Your task to perform on an android device: turn on bluetooth scan Image 0: 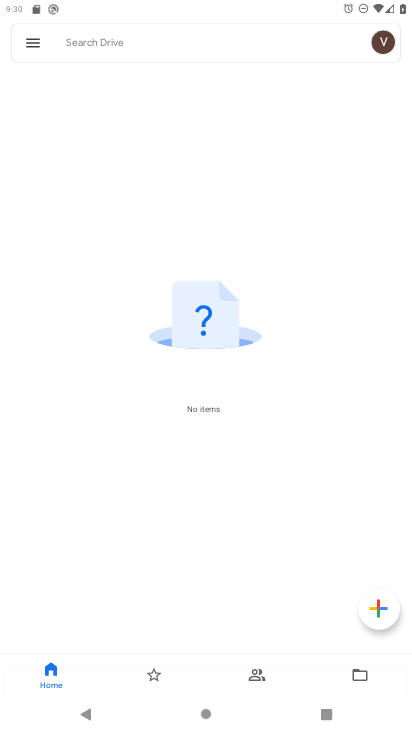
Step 0: press home button
Your task to perform on an android device: turn on bluetooth scan Image 1: 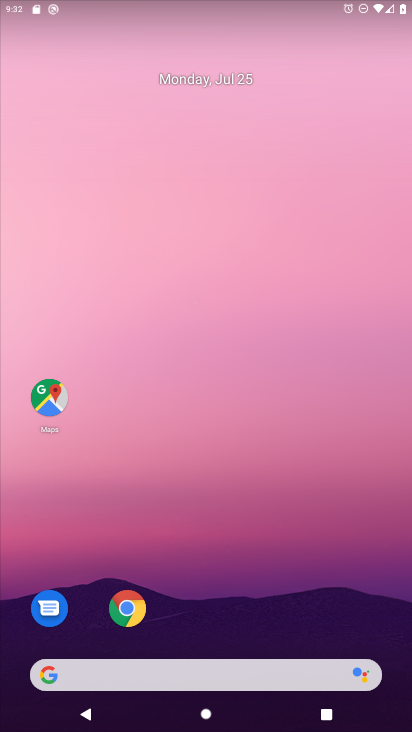
Step 1: drag from (150, 404) to (158, 146)
Your task to perform on an android device: turn on bluetooth scan Image 2: 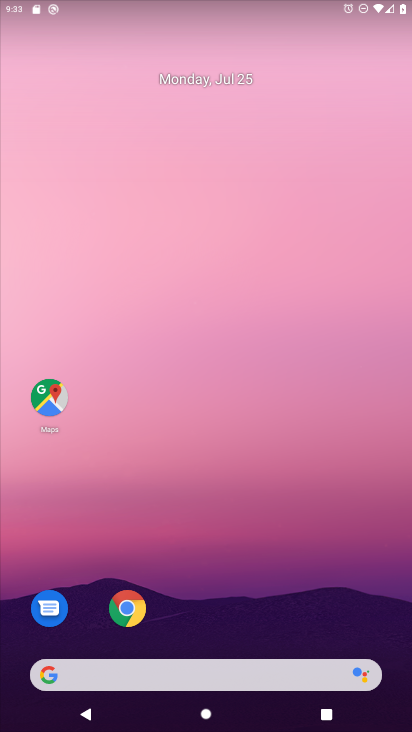
Step 2: drag from (131, 718) to (217, 113)
Your task to perform on an android device: turn on bluetooth scan Image 3: 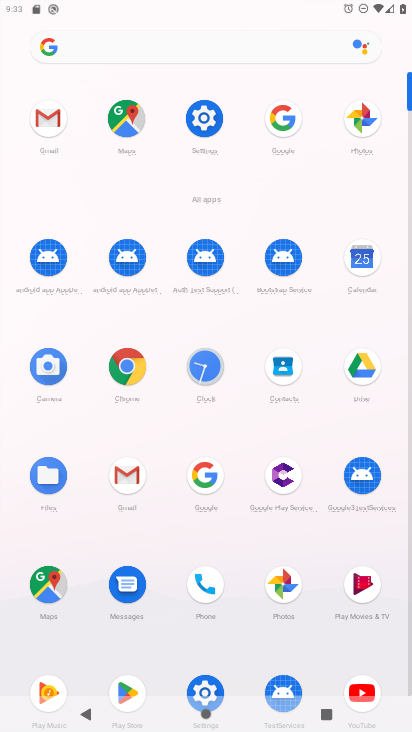
Step 3: click (207, 119)
Your task to perform on an android device: turn on bluetooth scan Image 4: 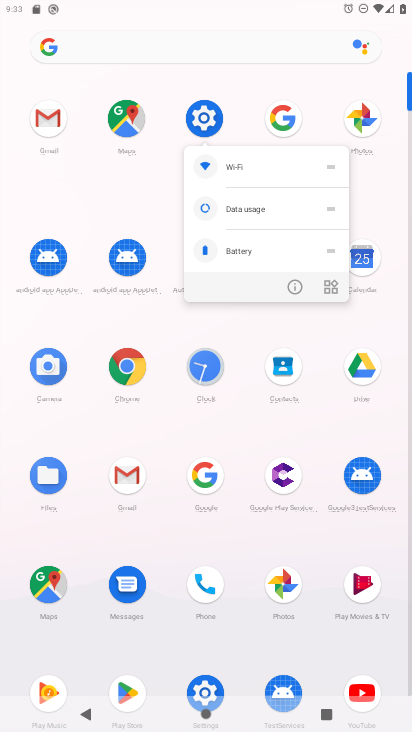
Step 4: click (201, 115)
Your task to perform on an android device: turn on bluetooth scan Image 5: 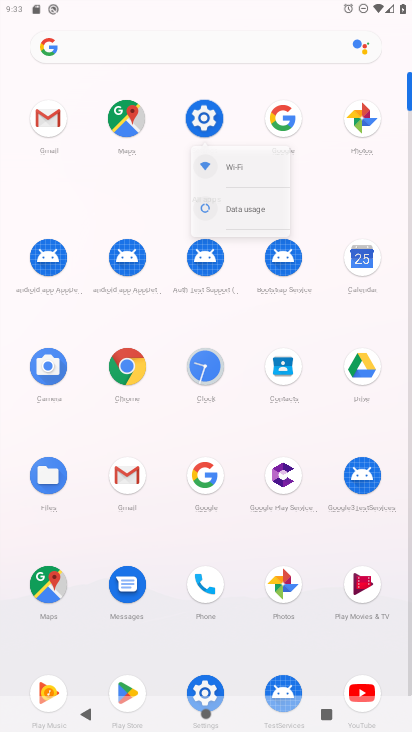
Step 5: click (201, 115)
Your task to perform on an android device: turn on bluetooth scan Image 6: 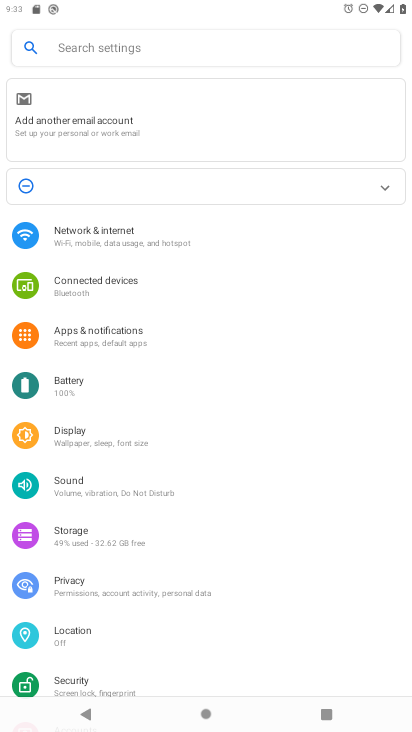
Step 6: click (87, 642)
Your task to perform on an android device: turn on bluetooth scan Image 7: 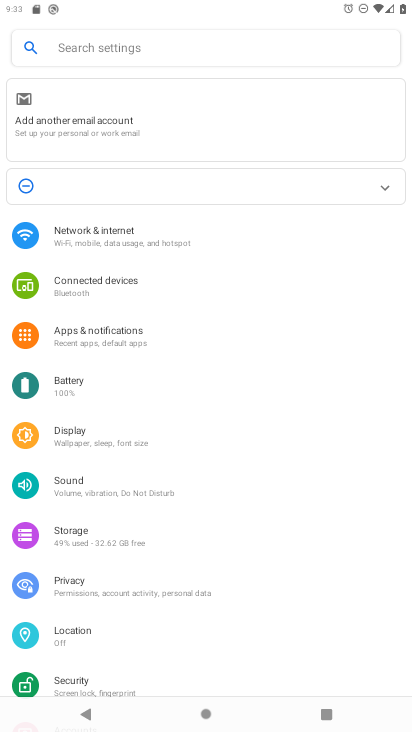
Step 7: click (87, 642)
Your task to perform on an android device: turn on bluetooth scan Image 8: 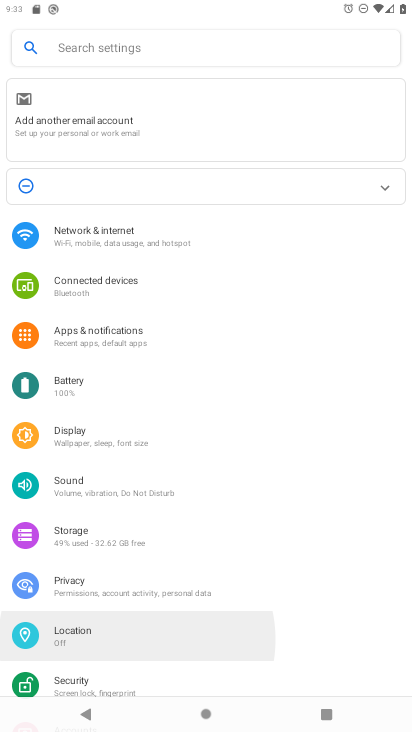
Step 8: click (87, 642)
Your task to perform on an android device: turn on bluetooth scan Image 9: 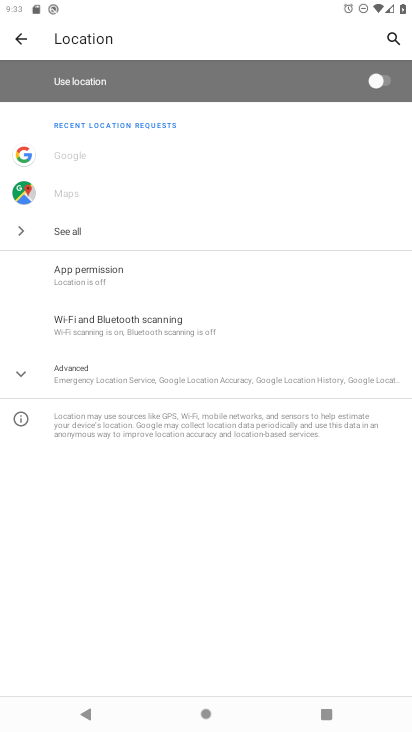
Step 9: click (125, 325)
Your task to perform on an android device: turn on bluetooth scan Image 10: 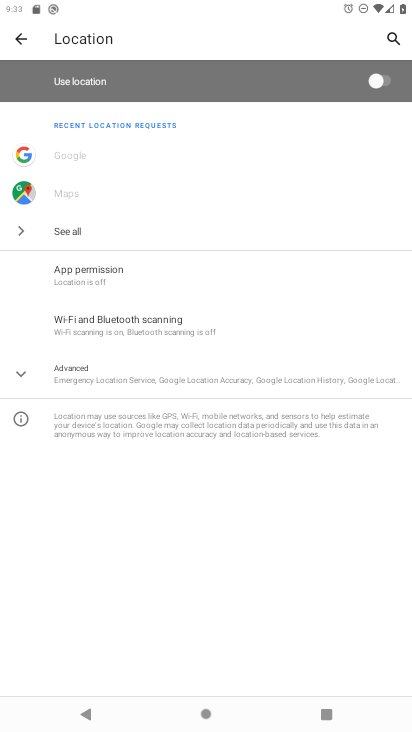
Step 10: click (125, 325)
Your task to perform on an android device: turn on bluetooth scan Image 11: 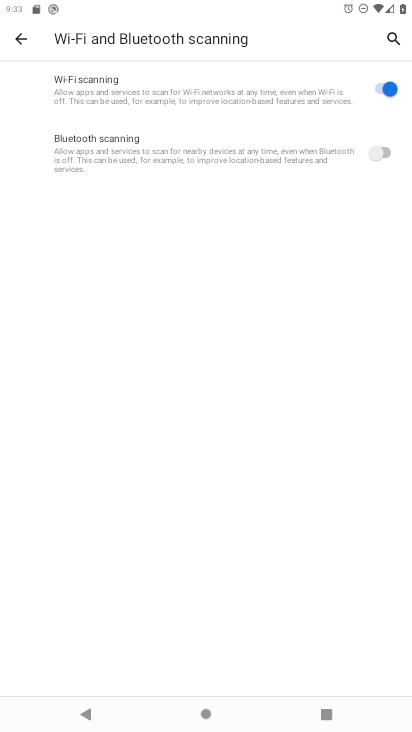
Step 11: click (198, 161)
Your task to perform on an android device: turn on bluetooth scan Image 12: 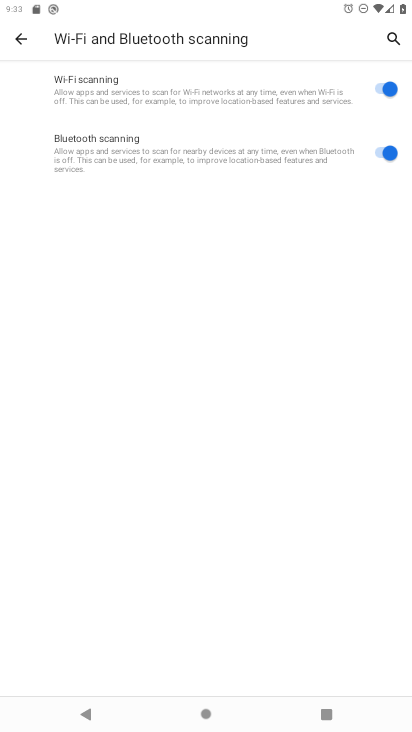
Step 12: task complete